Your task to perform on an android device: search for starred emails in the gmail app Image 0: 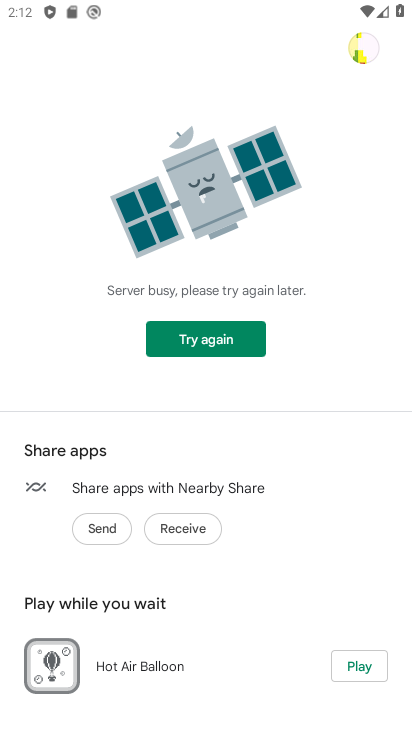
Step 0: press home button
Your task to perform on an android device: search for starred emails in the gmail app Image 1: 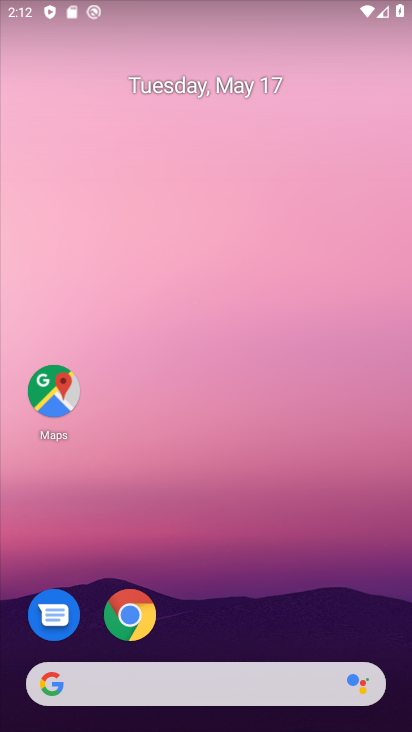
Step 1: drag from (219, 630) to (243, 186)
Your task to perform on an android device: search for starred emails in the gmail app Image 2: 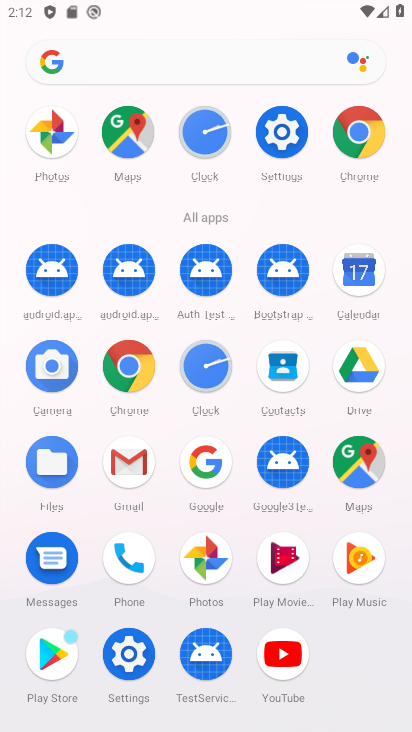
Step 2: click (127, 459)
Your task to perform on an android device: search for starred emails in the gmail app Image 3: 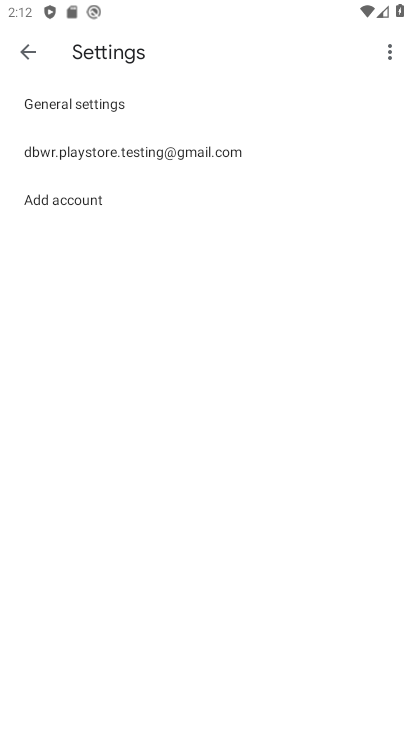
Step 3: click (141, 98)
Your task to perform on an android device: search for starred emails in the gmail app Image 4: 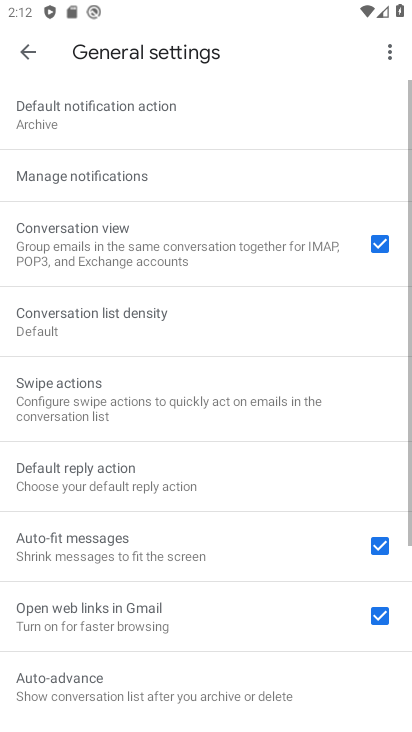
Step 4: click (25, 49)
Your task to perform on an android device: search for starred emails in the gmail app Image 5: 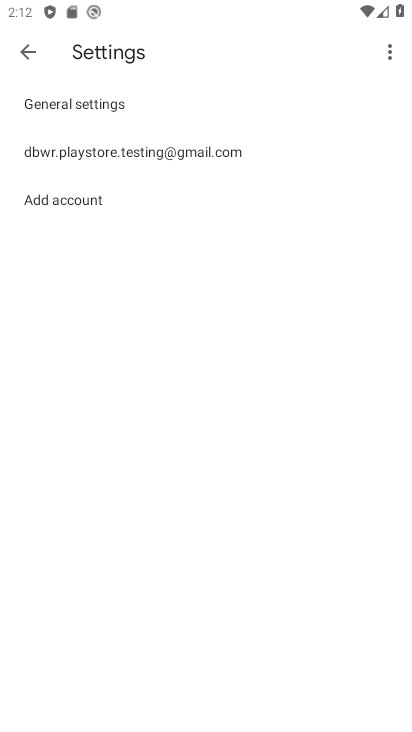
Step 5: click (25, 49)
Your task to perform on an android device: search for starred emails in the gmail app Image 6: 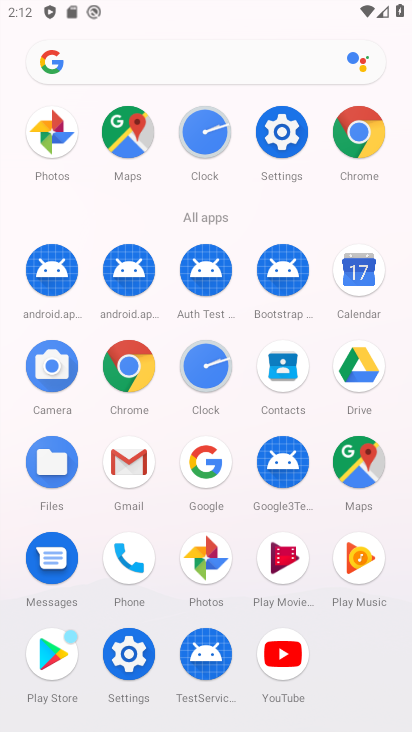
Step 6: click (128, 459)
Your task to perform on an android device: search for starred emails in the gmail app Image 7: 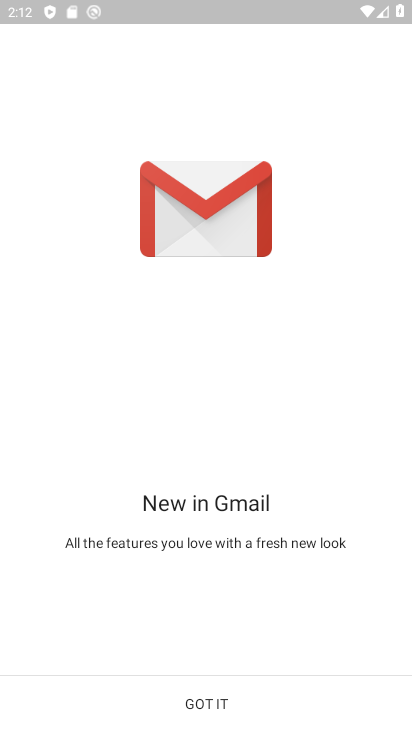
Step 7: click (218, 709)
Your task to perform on an android device: search for starred emails in the gmail app Image 8: 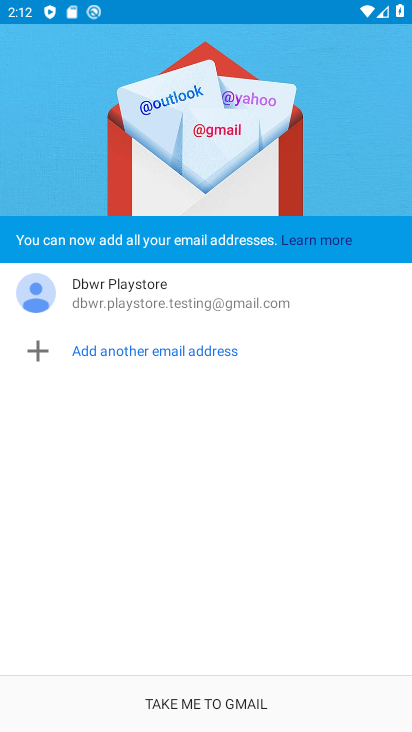
Step 8: click (207, 695)
Your task to perform on an android device: search for starred emails in the gmail app Image 9: 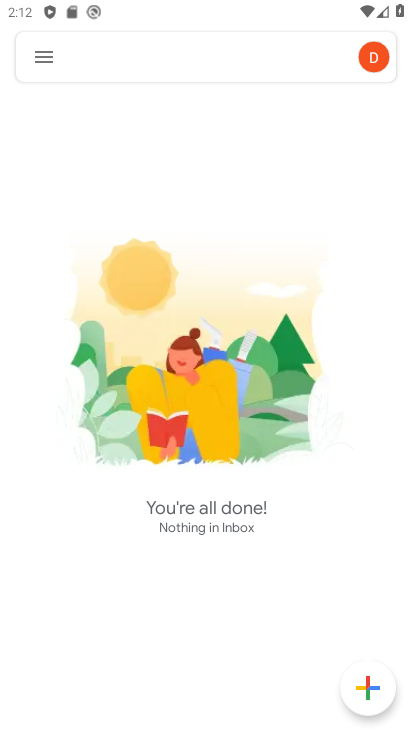
Step 9: click (43, 49)
Your task to perform on an android device: search for starred emails in the gmail app Image 10: 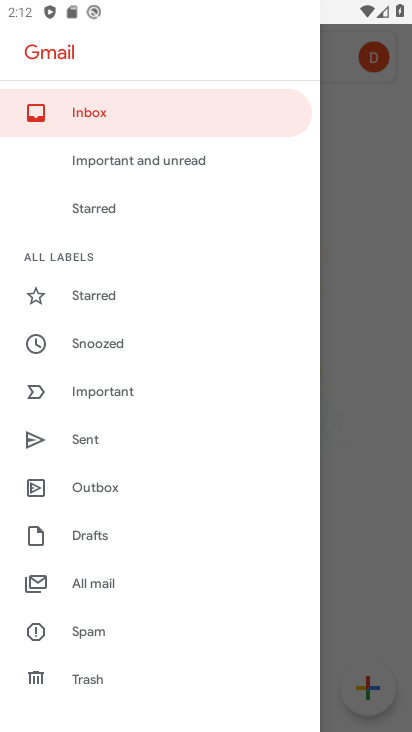
Step 10: click (125, 286)
Your task to perform on an android device: search for starred emails in the gmail app Image 11: 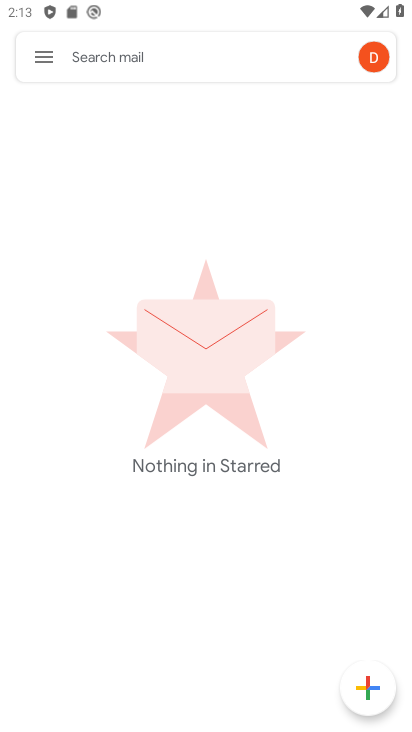
Step 11: task complete